Your task to perform on an android device: toggle priority inbox in the gmail app Image 0: 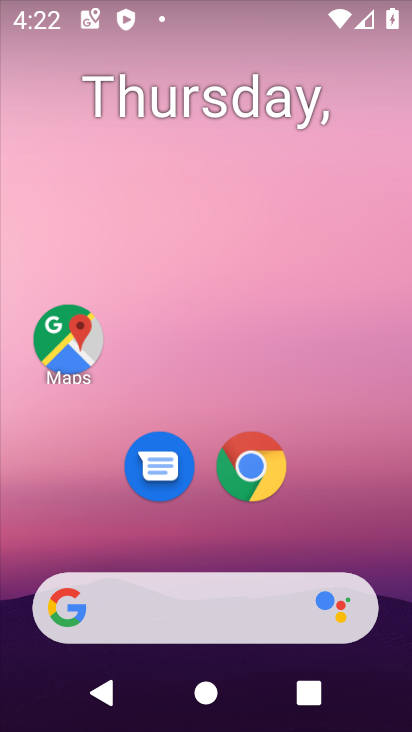
Step 0: drag from (363, 429) to (362, 17)
Your task to perform on an android device: toggle priority inbox in the gmail app Image 1: 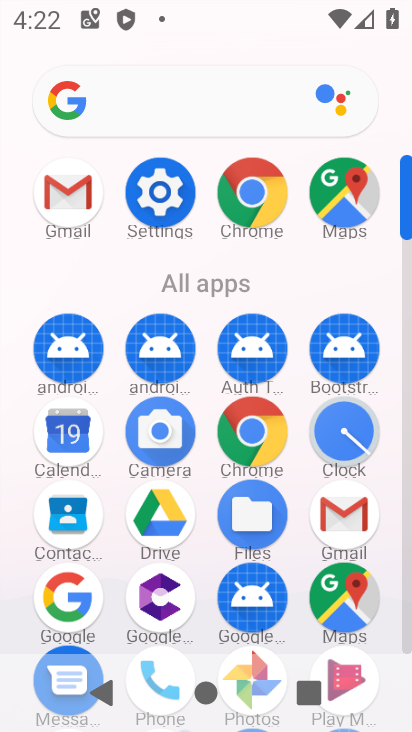
Step 1: click (75, 188)
Your task to perform on an android device: toggle priority inbox in the gmail app Image 2: 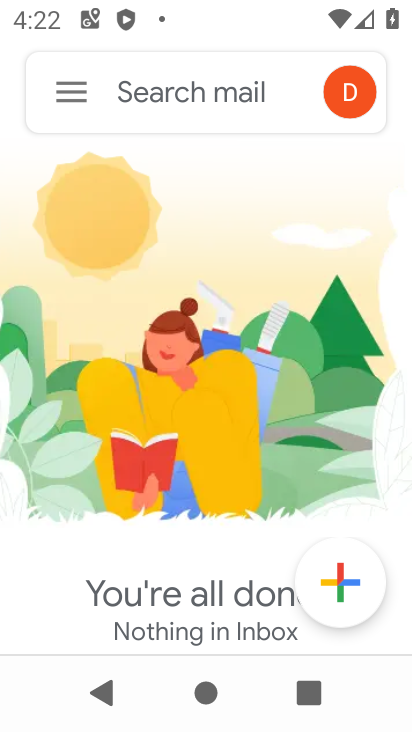
Step 2: click (49, 99)
Your task to perform on an android device: toggle priority inbox in the gmail app Image 3: 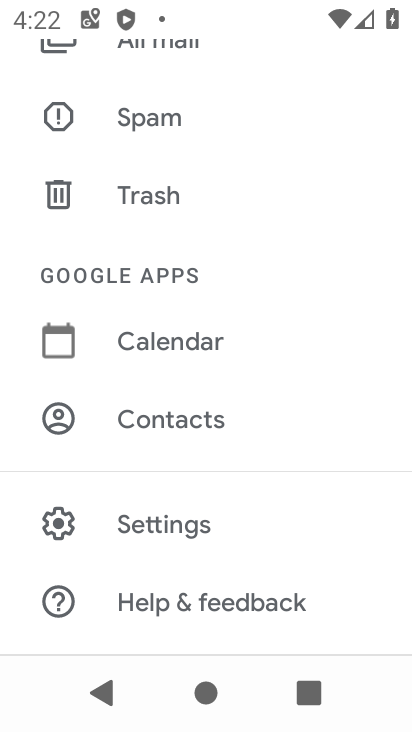
Step 3: click (146, 538)
Your task to perform on an android device: toggle priority inbox in the gmail app Image 4: 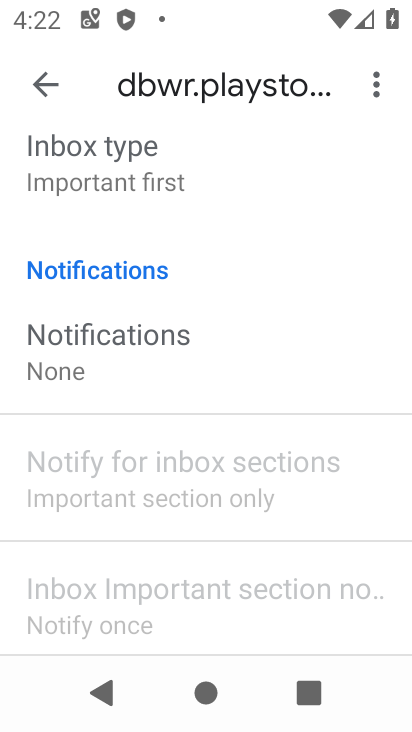
Step 4: drag from (130, 244) to (131, 611)
Your task to perform on an android device: toggle priority inbox in the gmail app Image 5: 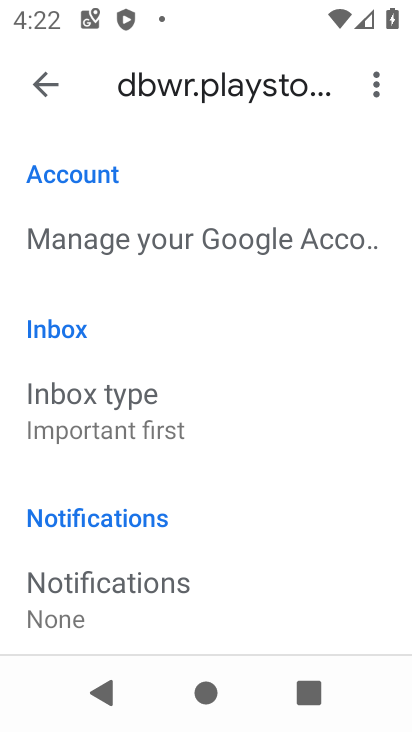
Step 5: click (25, 392)
Your task to perform on an android device: toggle priority inbox in the gmail app Image 6: 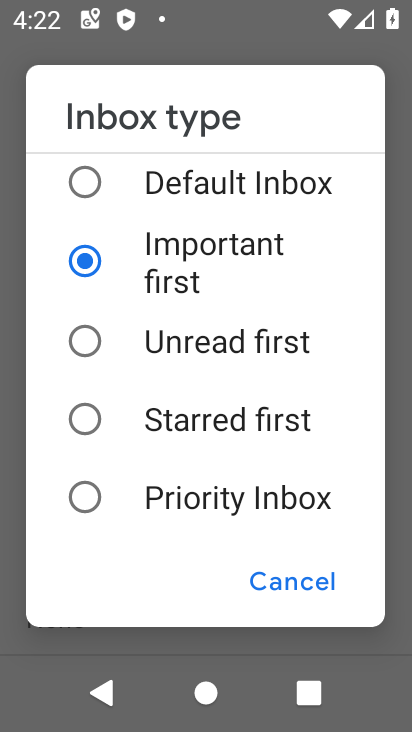
Step 6: click (186, 508)
Your task to perform on an android device: toggle priority inbox in the gmail app Image 7: 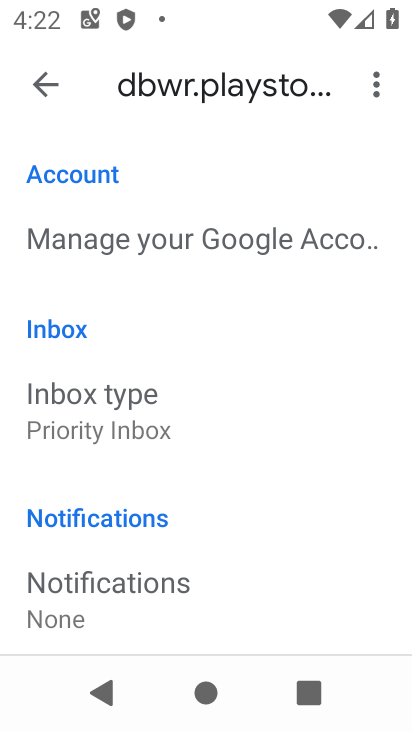
Step 7: task complete